Your task to perform on an android device: clear history in the chrome app Image 0: 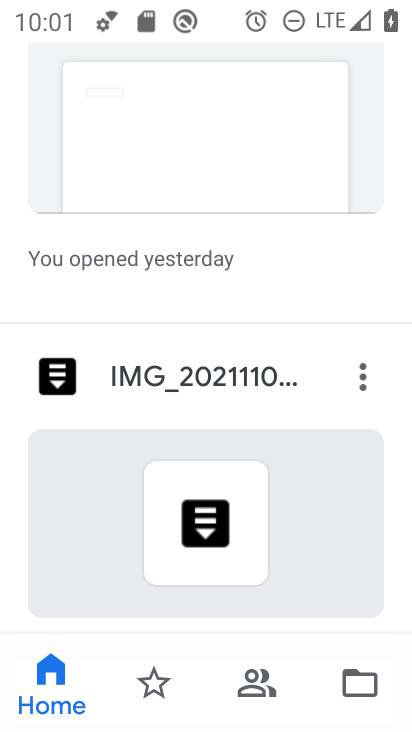
Step 0: press home button
Your task to perform on an android device: clear history in the chrome app Image 1: 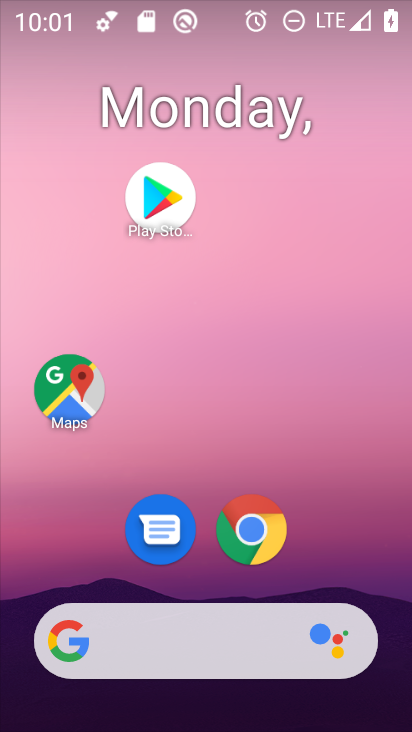
Step 1: click (256, 527)
Your task to perform on an android device: clear history in the chrome app Image 2: 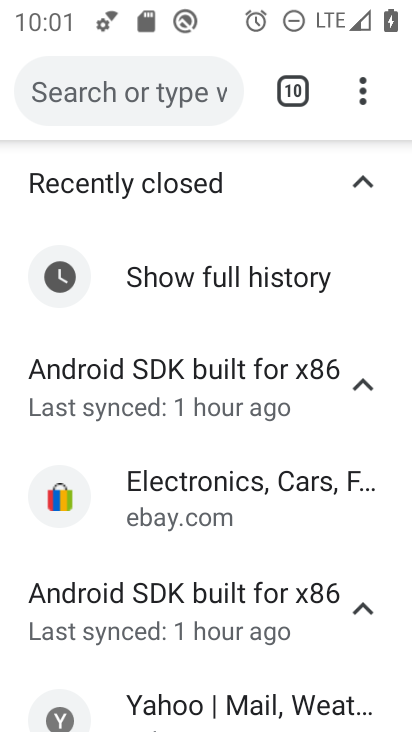
Step 2: click (362, 87)
Your task to perform on an android device: clear history in the chrome app Image 3: 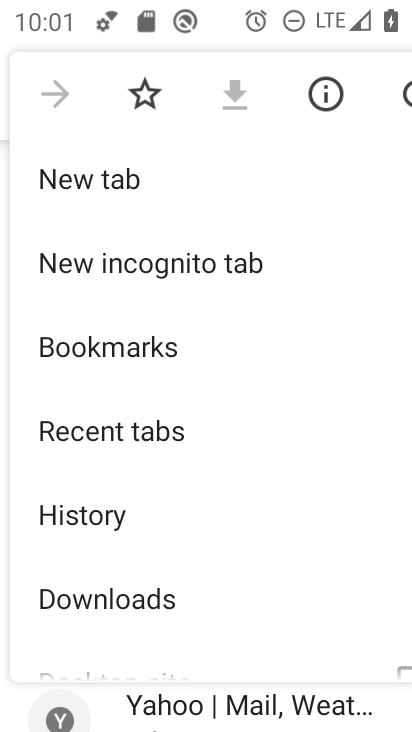
Step 3: click (74, 516)
Your task to perform on an android device: clear history in the chrome app Image 4: 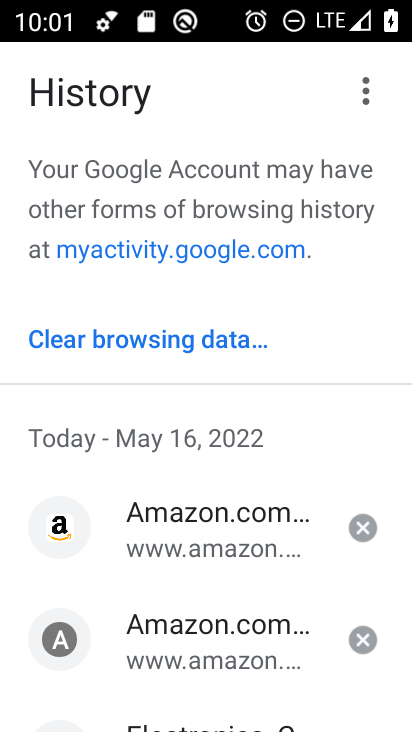
Step 4: click (184, 337)
Your task to perform on an android device: clear history in the chrome app Image 5: 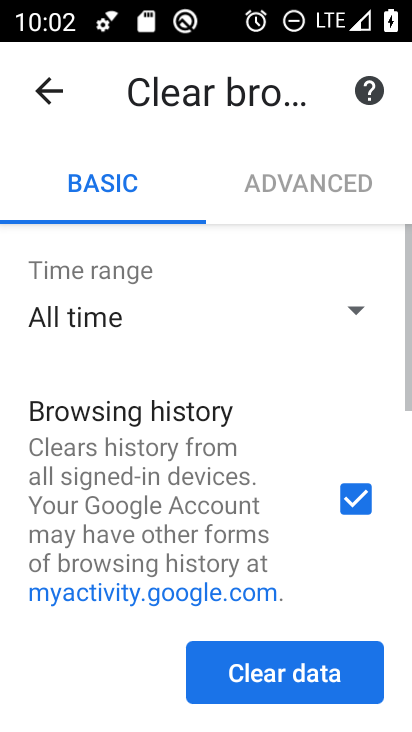
Step 5: click (294, 668)
Your task to perform on an android device: clear history in the chrome app Image 6: 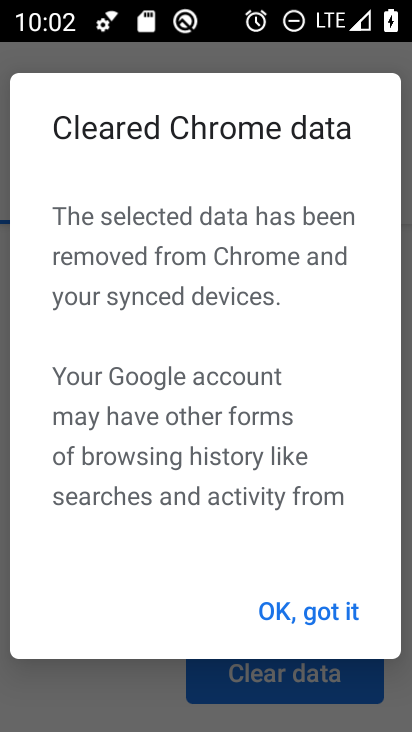
Step 6: click (308, 610)
Your task to perform on an android device: clear history in the chrome app Image 7: 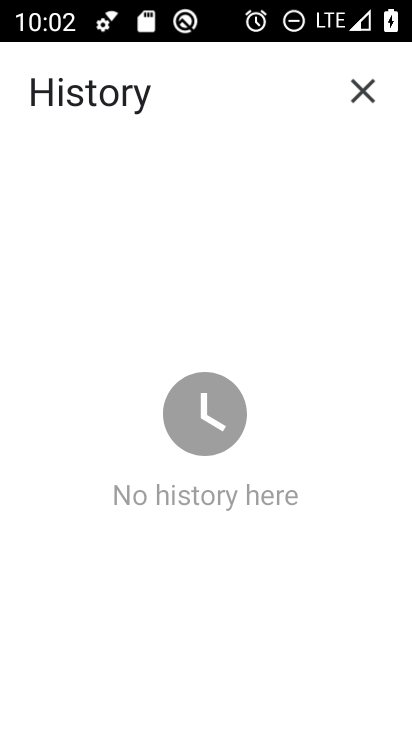
Step 7: task complete